Your task to perform on an android device: star an email in the gmail app Image 0: 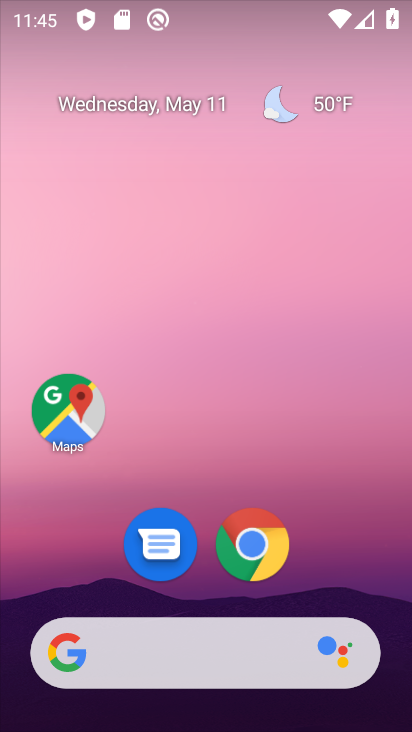
Step 0: drag from (196, 659) to (181, 24)
Your task to perform on an android device: star an email in the gmail app Image 1: 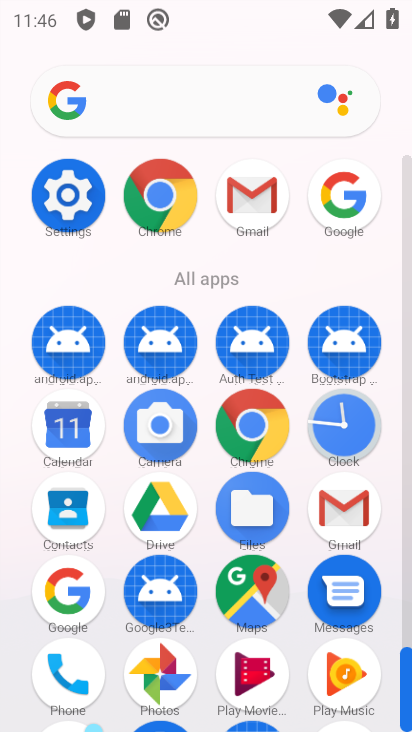
Step 1: click (252, 187)
Your task to perform on an android device: star an email in the gmail app Image 2: 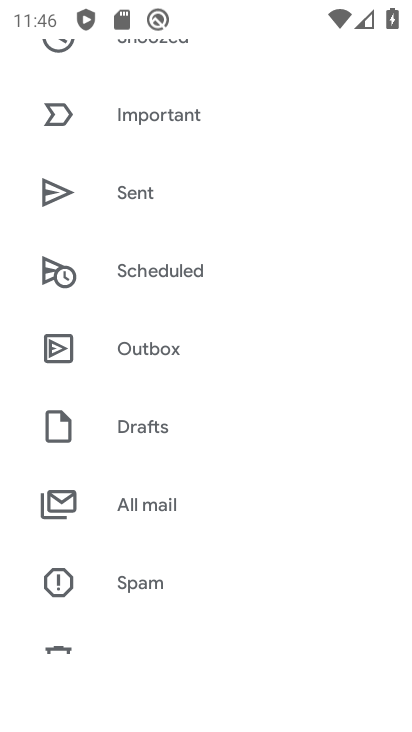
Step 2: drag from (147, 464) to (137, 281)
Your task to perform on an android device: star an email in the gmail app Image 3: 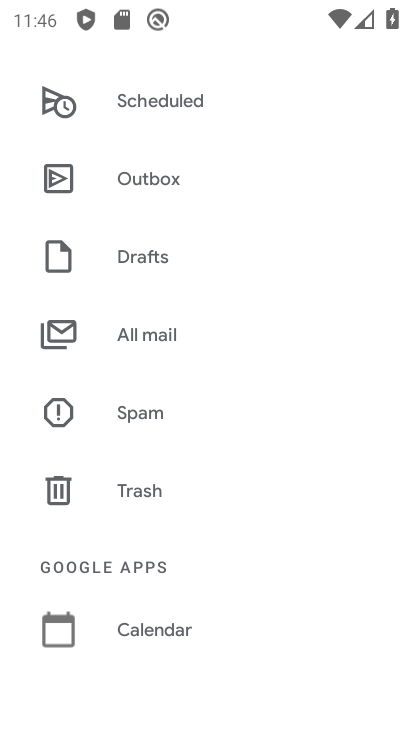
Step 3: click (138, 325)
Your task to perform on an android device: star an email in the gmail app Image 4: 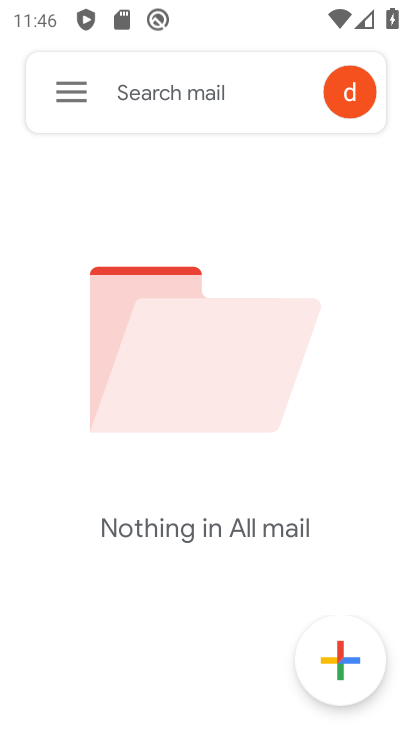
Step 4: task complete